Your task to perform on an android device: check out phone information Image 0: 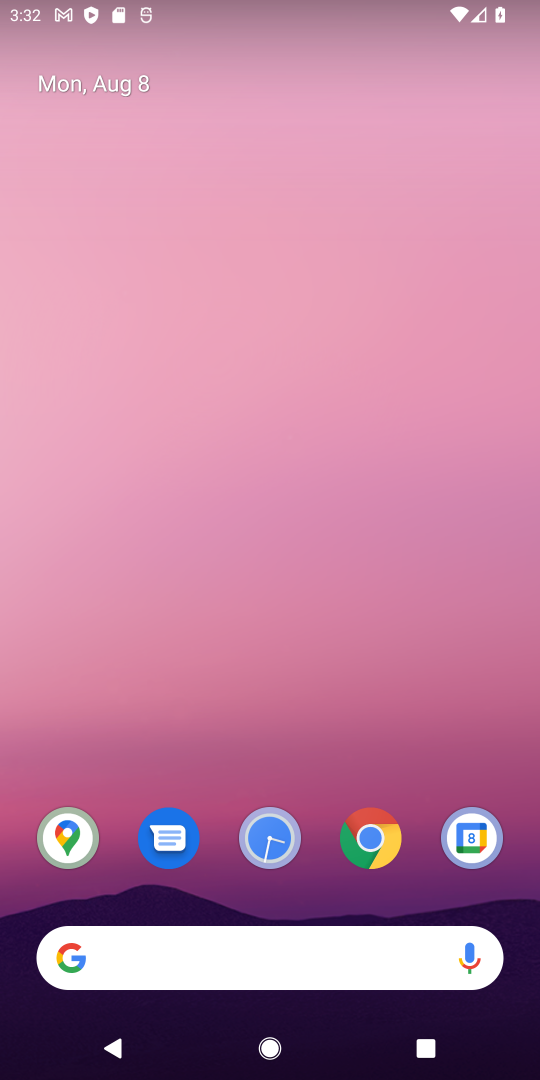
Step 0: drag from (257, 938) to (137, 191)
Your task to perform on an android device: check out phone information Image 1: 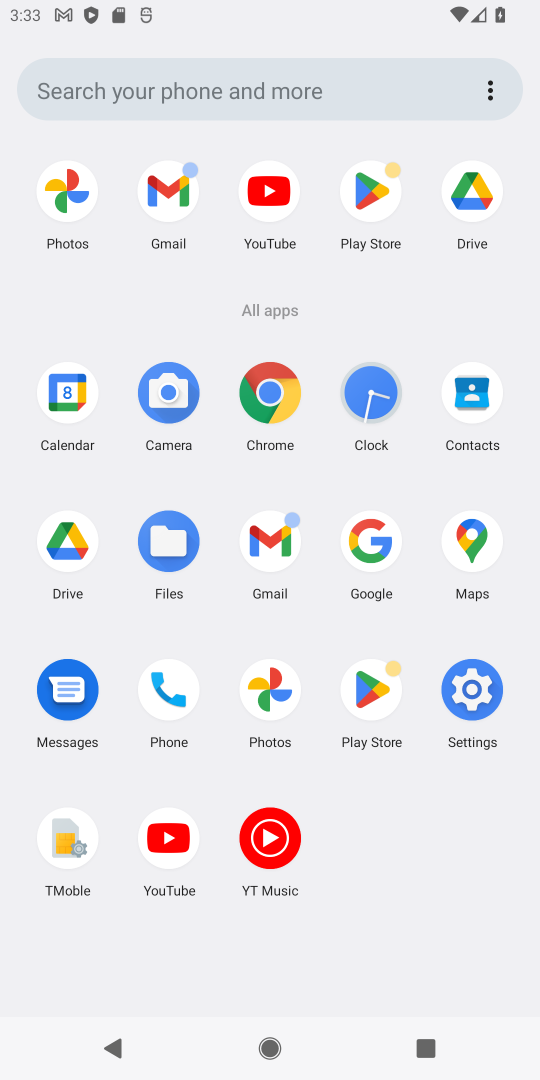
Step 1: click (477, 693)
Your task to perform on an android device: check out phone information Image 2: 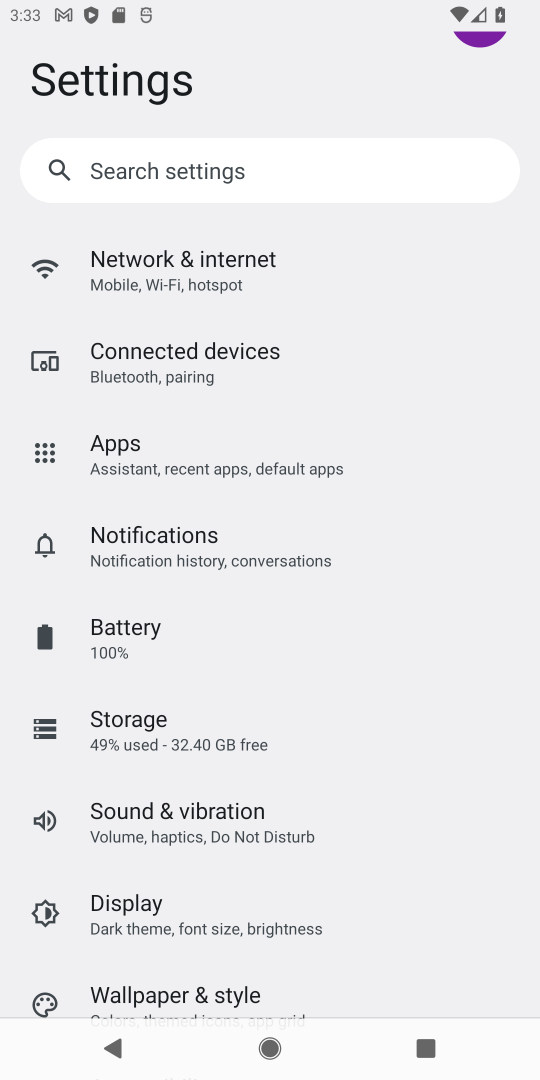
Step 2: drag from (362, 848) to (233, 518)
Your task to perform on an android device: check out phone information Image 3: 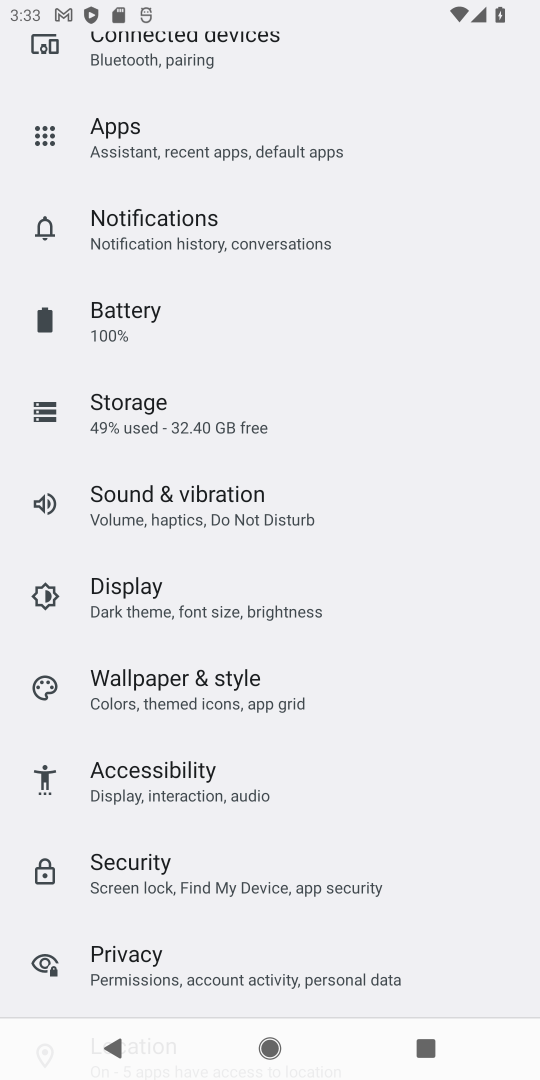
Step 3: drag from (335, 830) to (229, 531)
Your task to perform on an android device: check out phone information Image 4: 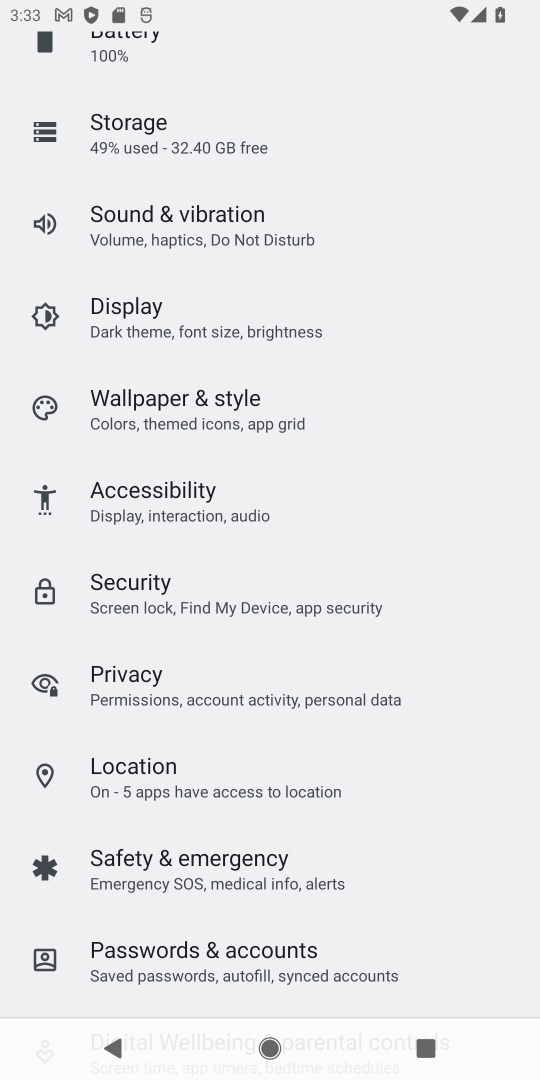
Step 4: drag from (259, 750) to (171, 261)
Your task to perform on an android device: check out phone information Image 5: 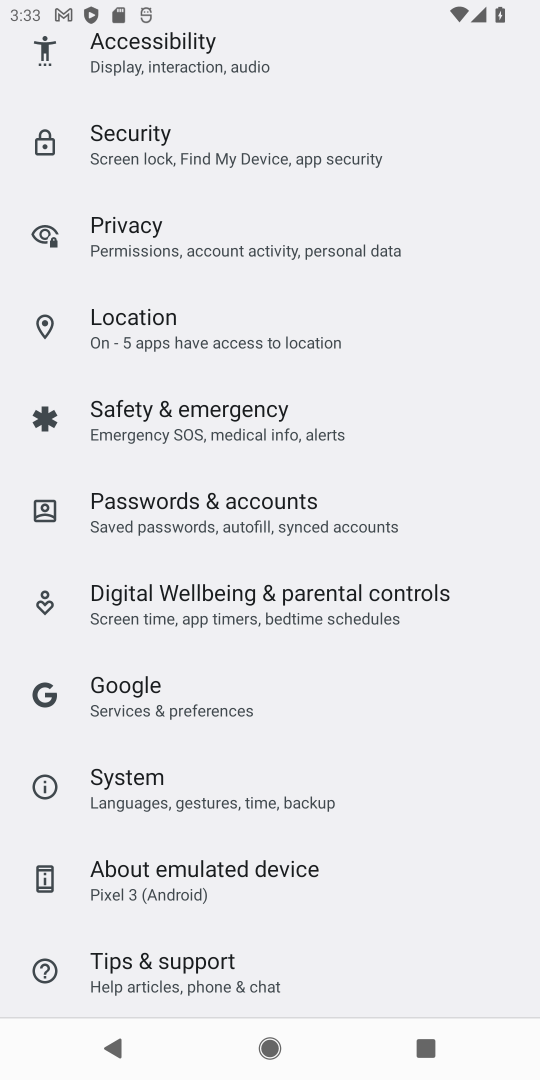
Step 5: drag from (222, 932) to (215, 821)
Your task to perform on an android device: check out phone information Image 6: 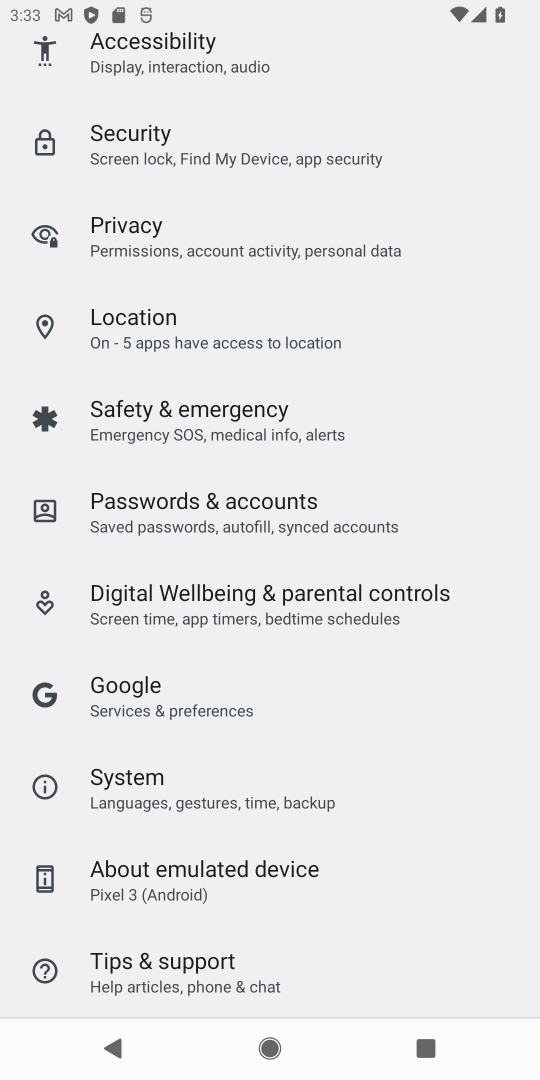
Step 6: click (199, 890)
Your task to perform on an android device: check out phone information Image 7: 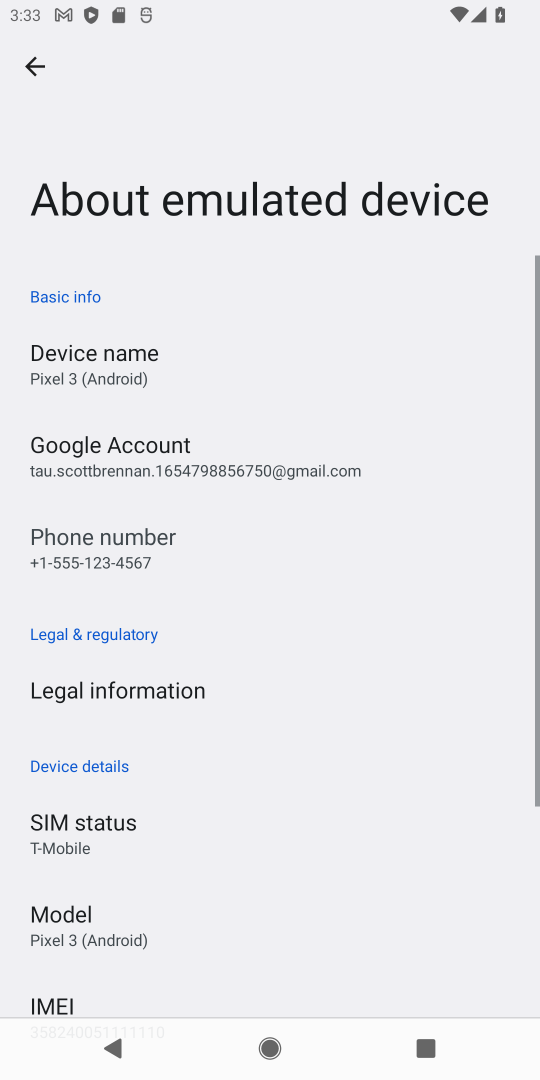
Step 7: task complete